Your task to perform on an android device: toggle improve location accuracy Image 0: 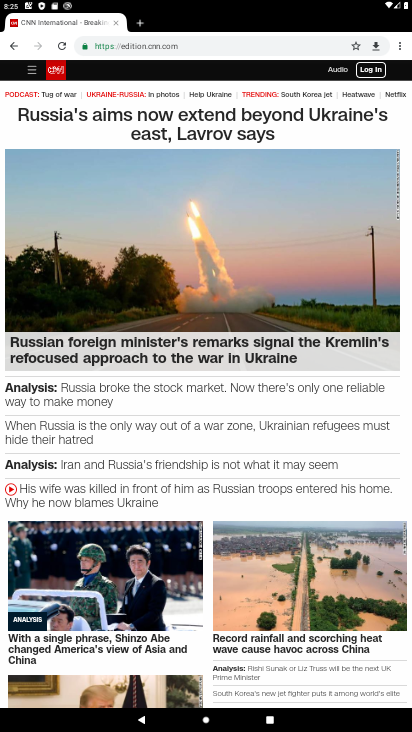
Step 0: press home button
Your task to perform on an android device: toggle improve location accuracy Image 1: 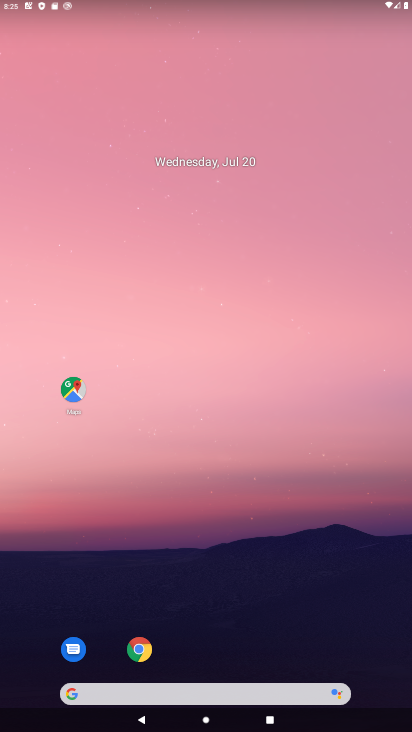
Step 1: drag from (200, 685) to (293, 0)
Your task to perform on an android device: toggle improve location accuracy Image 2: 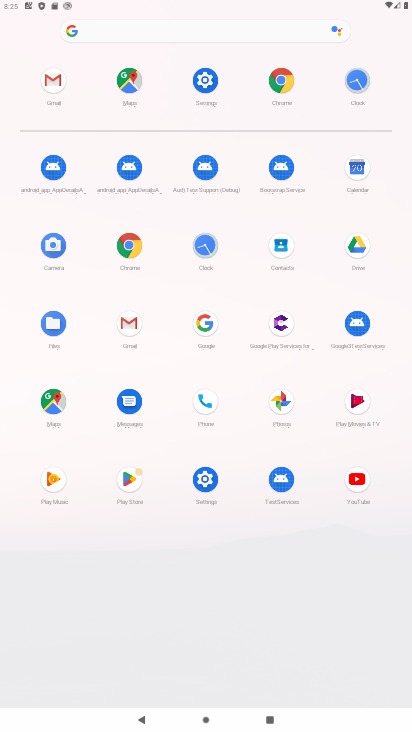
Step 2: click (204, 81)
Your task to perform on an android device: toggle improve location accuracy Image 3: 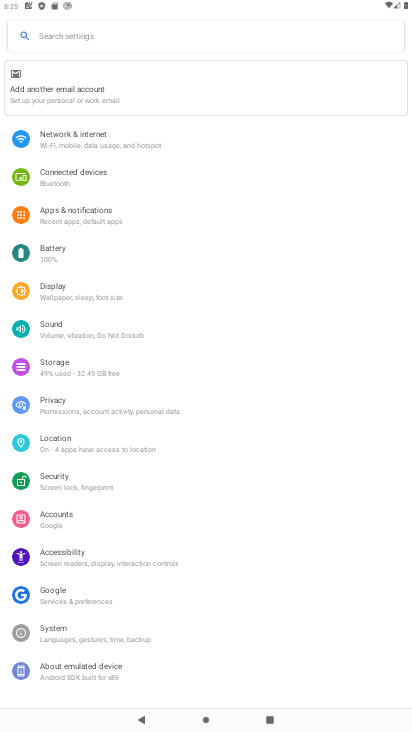
Step 3: click (62, 442)
Your task to perform on an android device: toggle improve location accuracy Image 4: 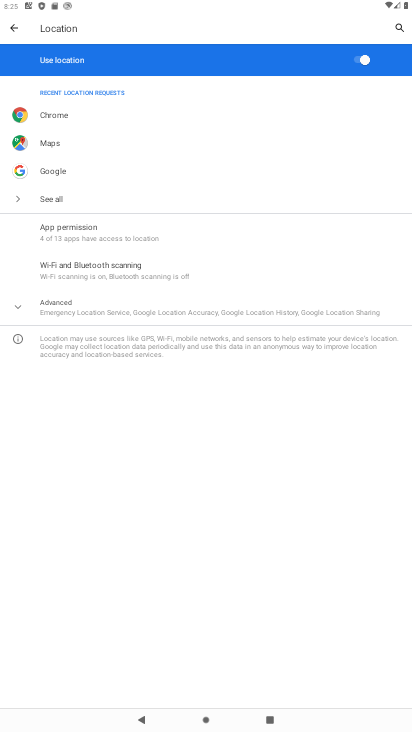
Step 4: click (167, 309)
Your task to perform on an android device: toggle improve location accuracy Image 5: 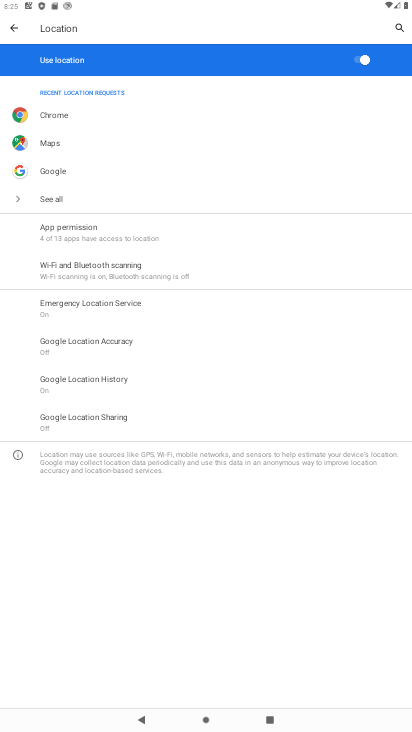
Step 5: click (113, 337)
Your task to perform on an android device: toggle improve location accuracy Image 6: 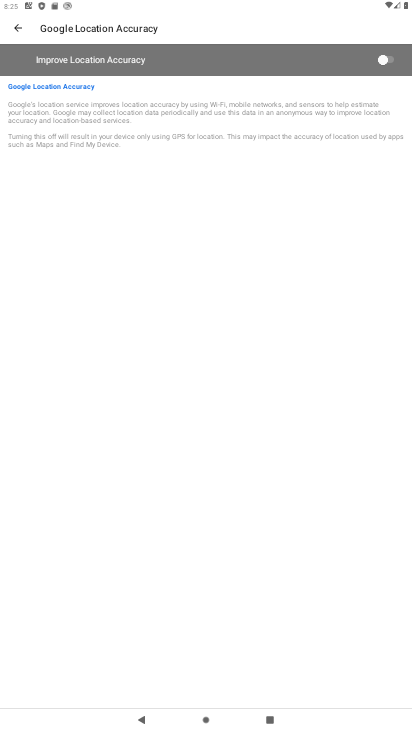
Step 6: click (385, 59)
Your task to perform on an android device: toggle improve location accuracy Image 7: 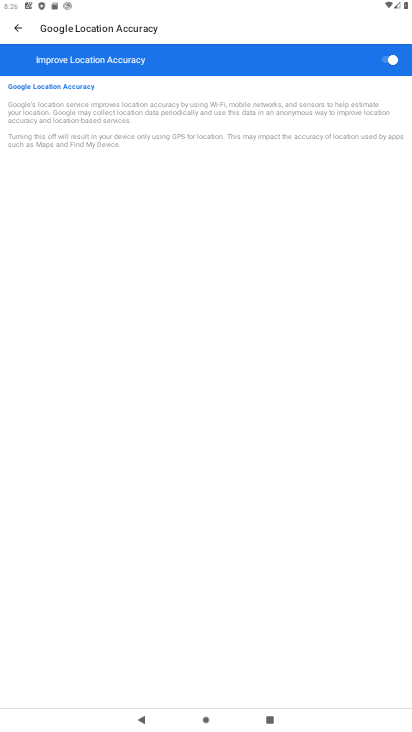
Step 7: task complete